Your task to perform on an android device: turn on wifi Image 0: 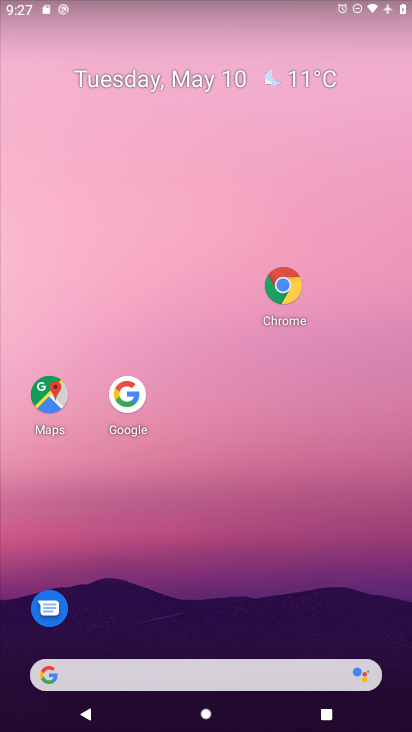
Step 0: drag from (157, 657) to (333, 92)
Your task to perform on an android device: turn on wifi Image 1: 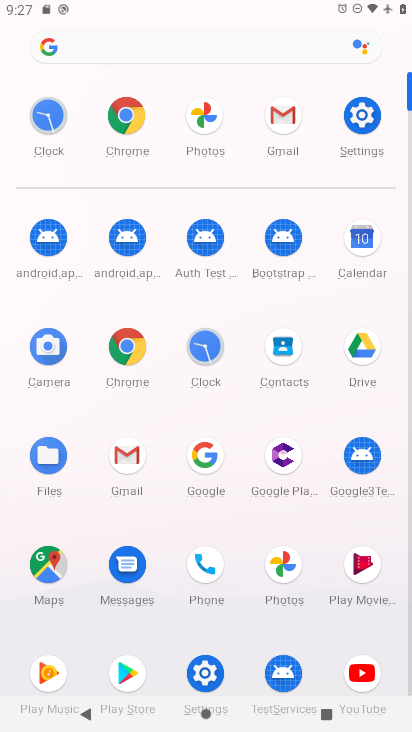
Step 1: click (363, 123)
Your task to perform on an android device: turn on wifi Image 2: 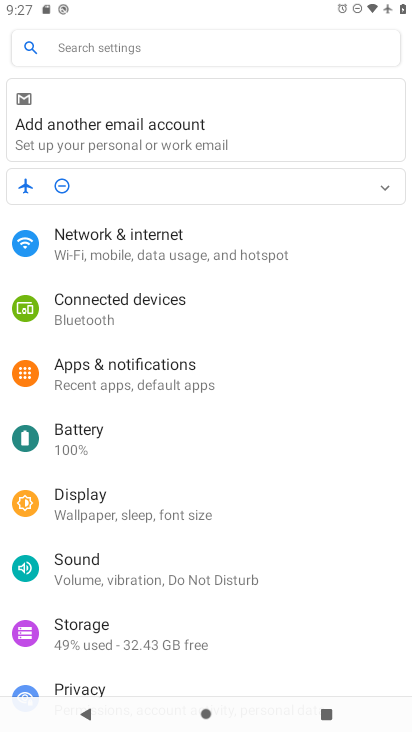
Step 2: click (157, 230)
Your task to perform on an android device: turn on wifi Image 3: 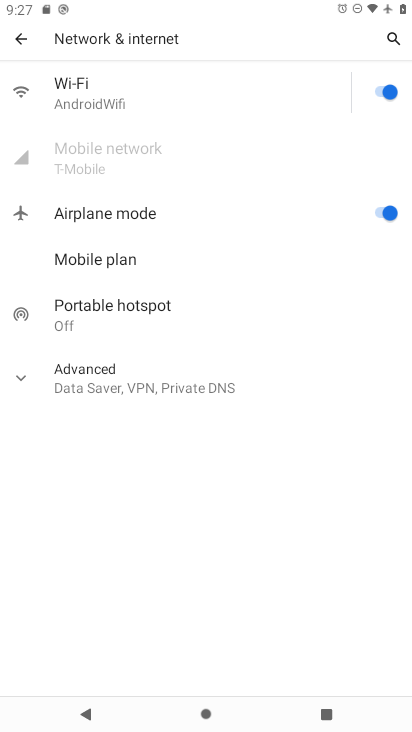
Step 3: task complete